Your task to perform on an android device: Open battery settings Image 0: 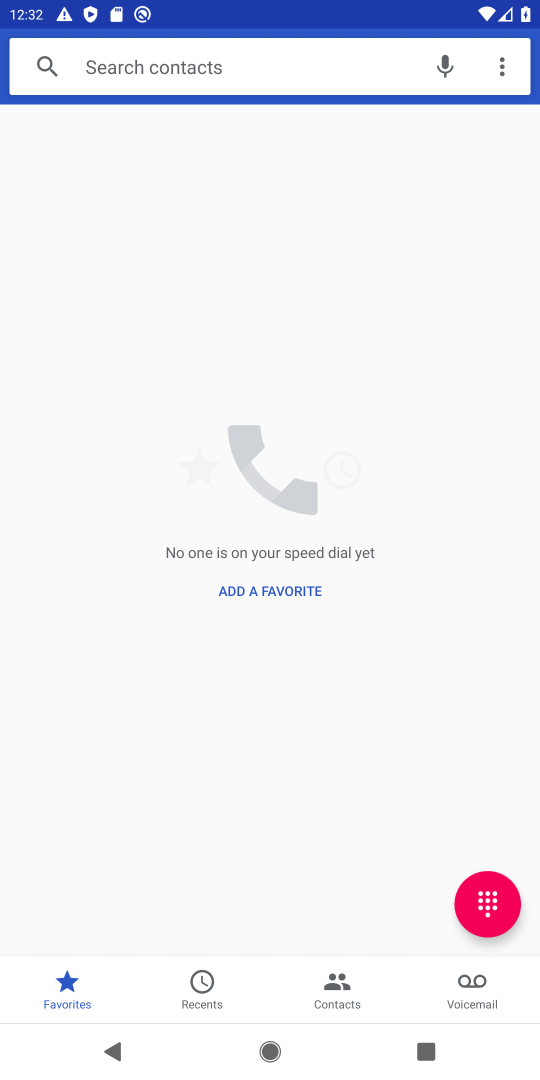
Step 0: press back button
Your task to perform on an android device: Open battery settings Image 1: 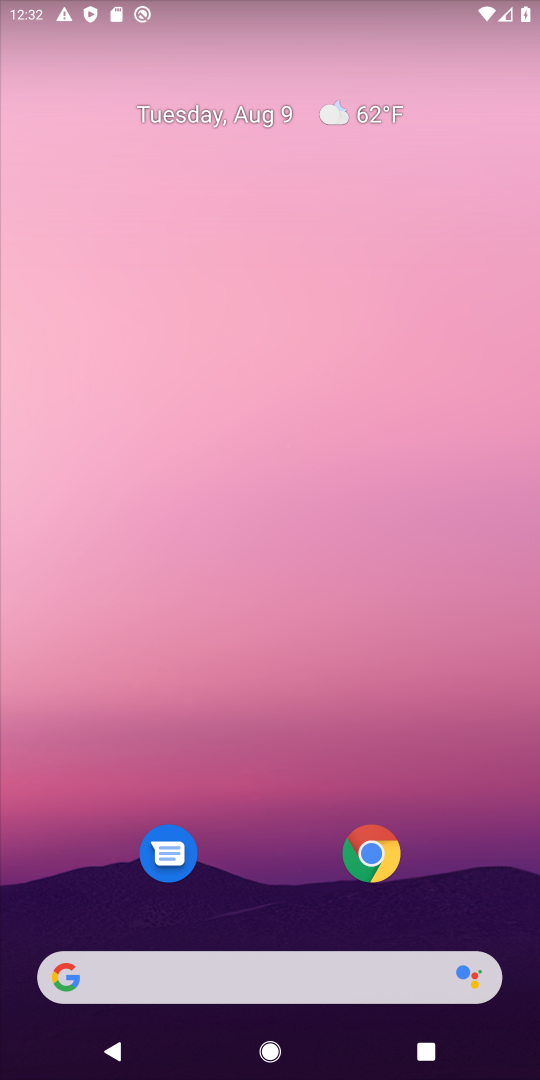
Step 1: drag from (272, 839) to (302, 46)
Your task to perform on an android device: Open battery settings Image 2: 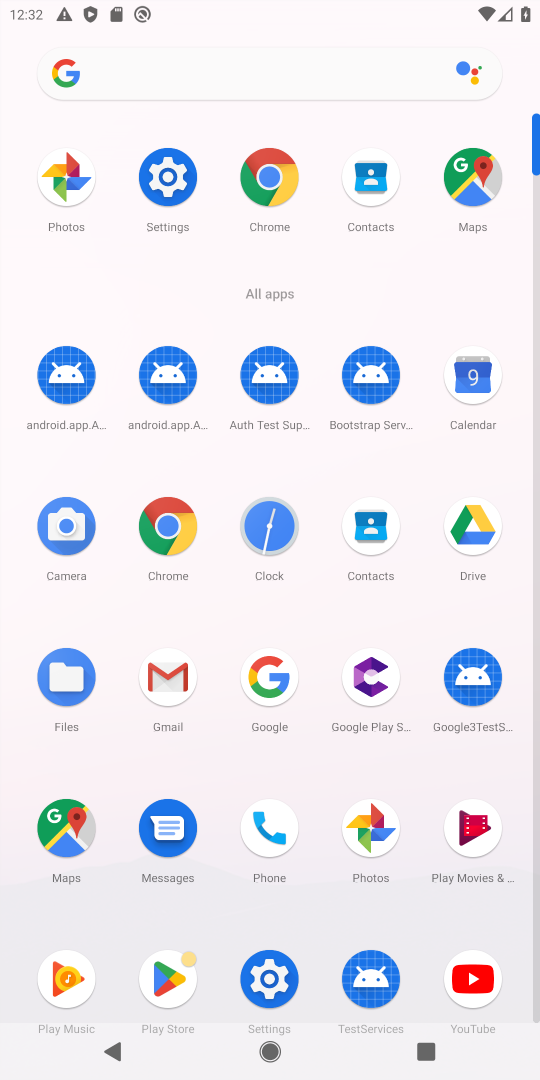
Step 2: click (150, 182)
Your task to perform on an android device: Open battery settings Image 3: 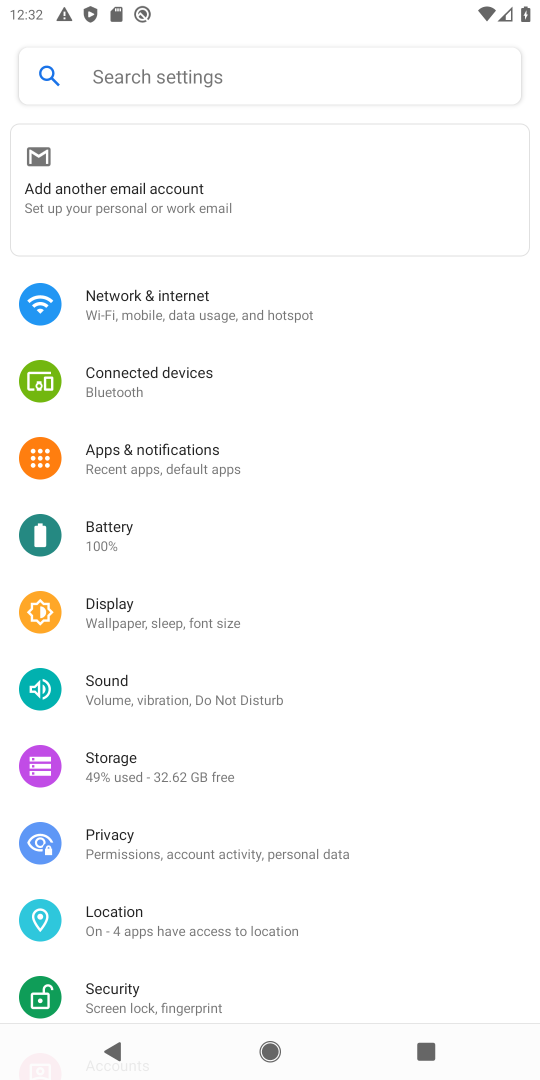
Step 3: click (127, 529)
Your task to perform on an android device: Open battery settings Image 4: 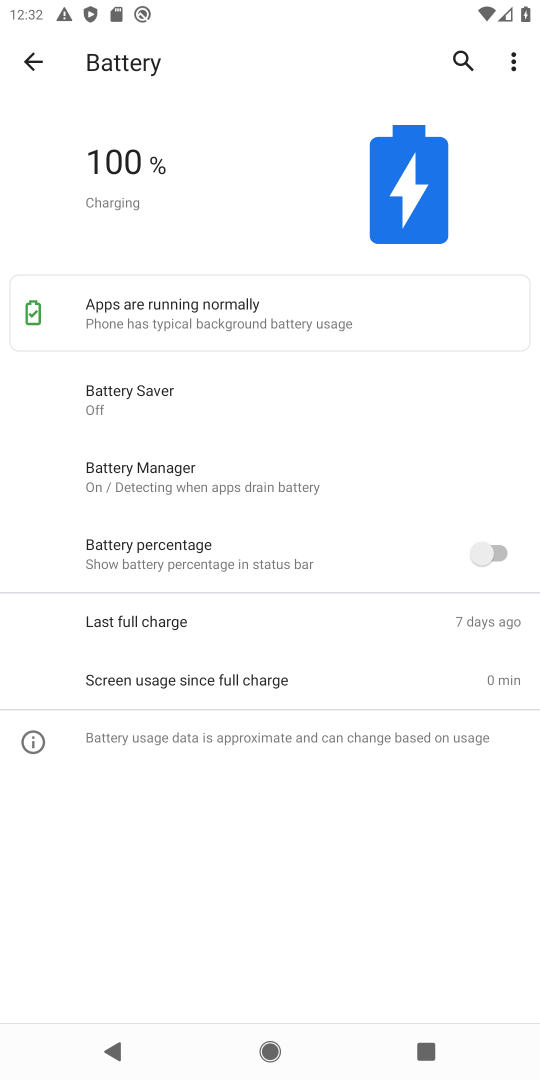
Step 4: task complete